Your task to perform on an android device: install app "Google Photos" Image 0: 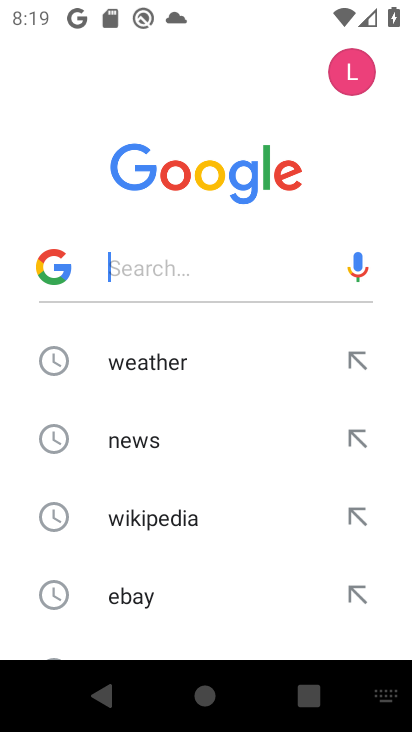
Step 0: press back button
Your task to perform on an android device: install app "Google Photos" Image 1: 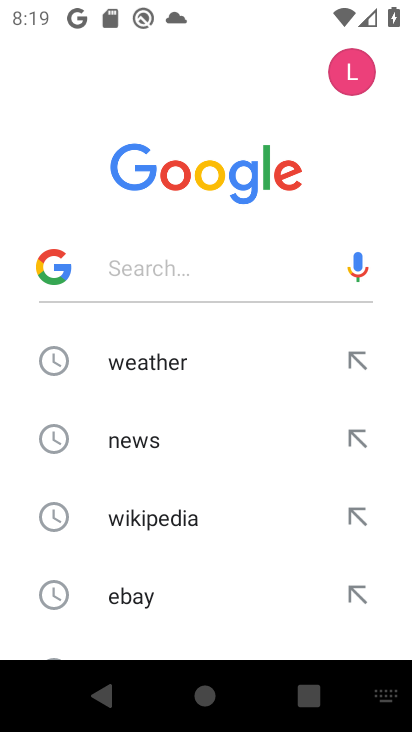
Step 1: press back button
Your task to perform on an android device: install app "Google Photos" Image 2: 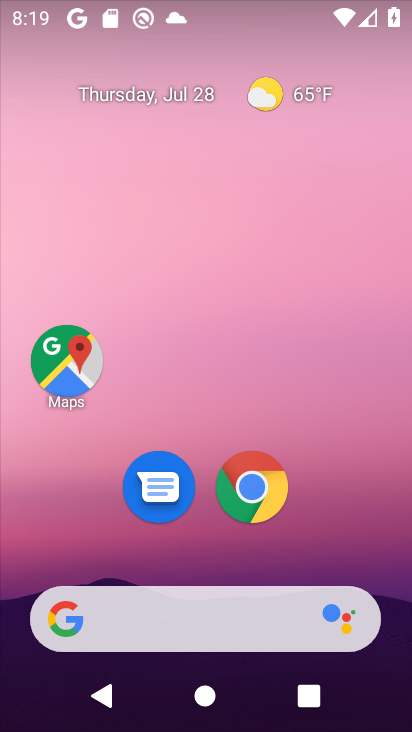
Step 2: drag from (227, 612) to (125, 69)
Your task to perform on an android device: install app "Google Photos" Image 3: 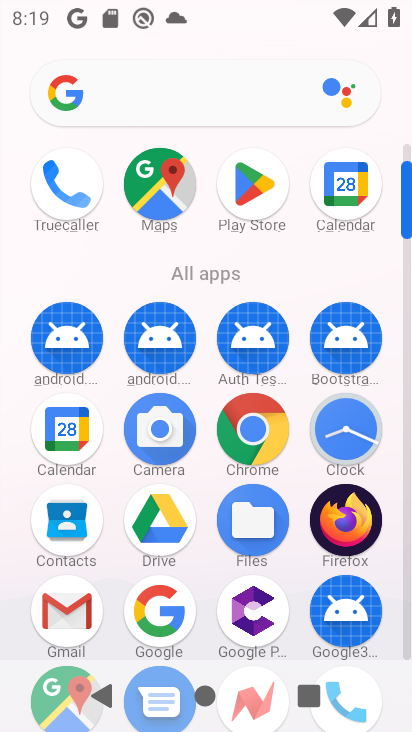
Step 3: click (261, 189)
Your task to perform on an android device: install app "Google Photos" Image 4: 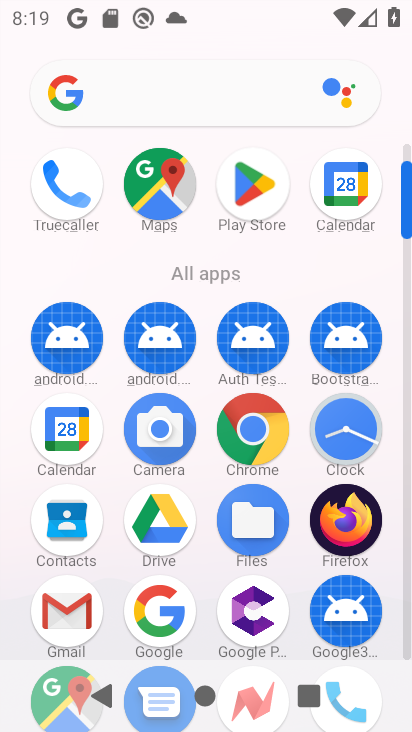
Step 4: click (261, 188)
Your task to perform on an android device: install app "Google Photos" Image 5: 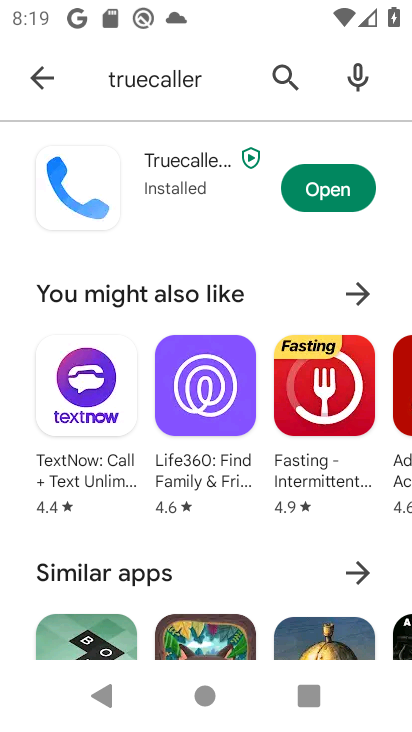
Step 5: click (30, 77)
Your task to perform on an android device: install app "Google Photos" Image 6: 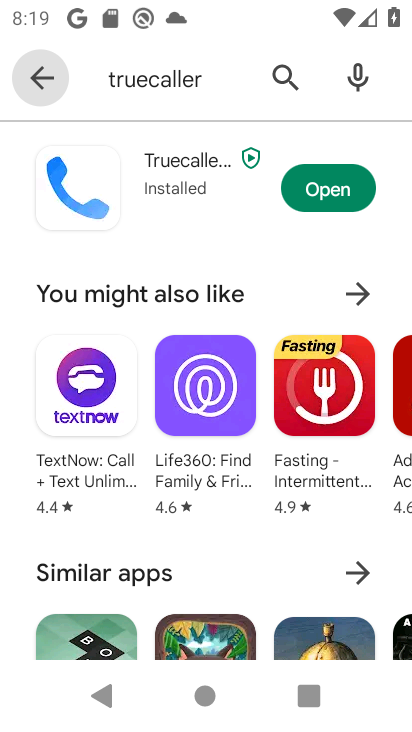
Step 6: click (31, 77)
Your task to perform on an android device: install app "Google Photos" Image 7: 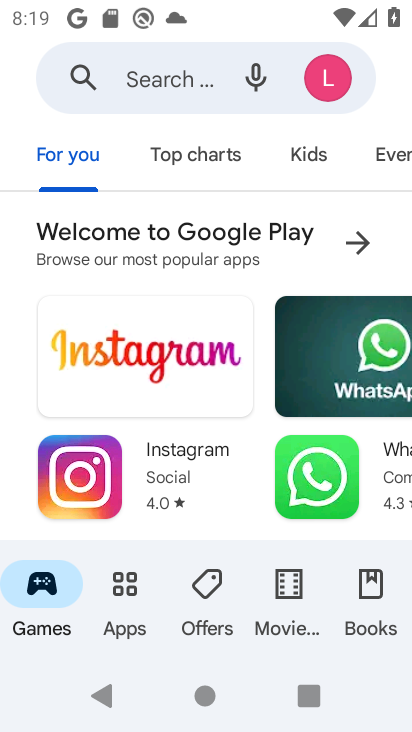
Step 7: click (164, 85)
Your task to perform on an android device: install app "Google Photos" Image 8: 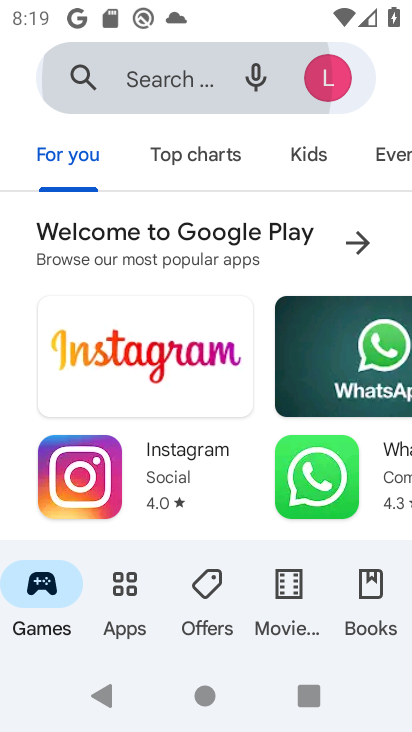
Step 8: click (166, 83)
Your task to perform on an android device: install app "Google Photos" Image 9: 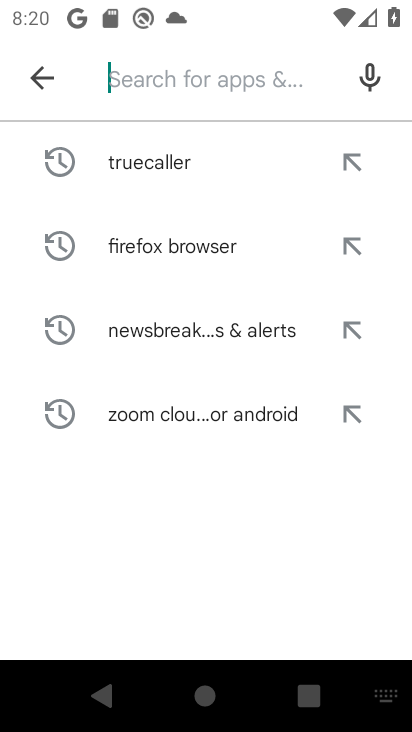
Step 9: type "google photos"
Your task to perform on an android device: install app "Google Photos" Image 10: 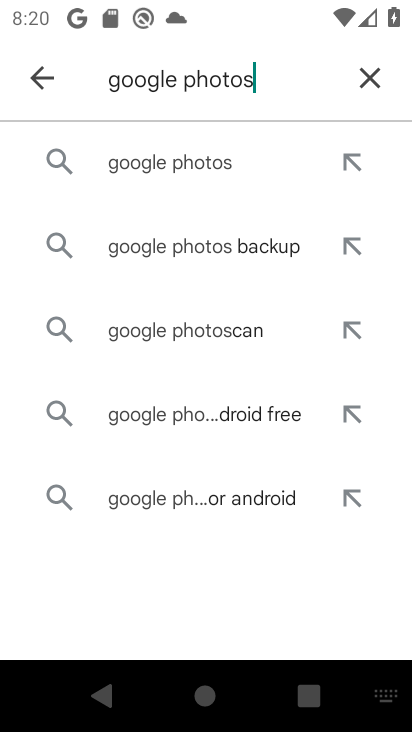
Step 10: click (346, 163)
Your task to perform on an android device: install app "Google Photos" Image 11: 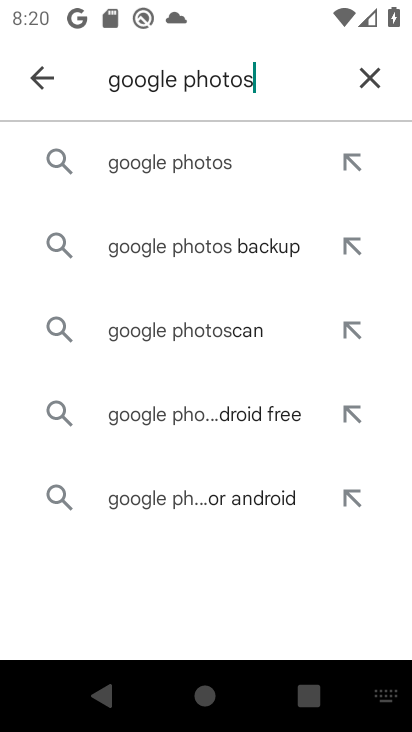
Step 11: click (347, 164)
Your task to perform on an android device: install app "Google Photos" Image 12: 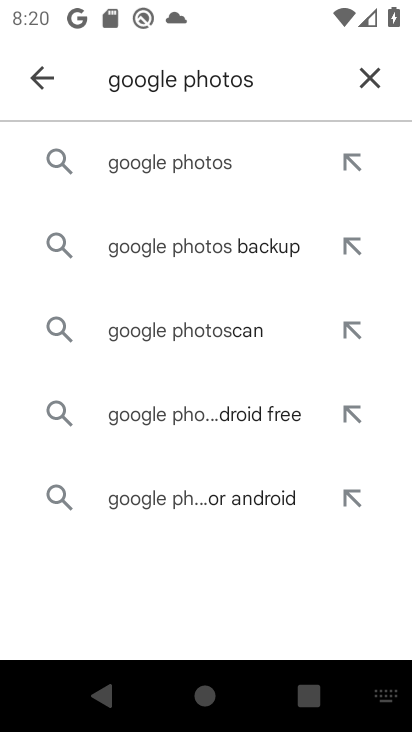
Step 12: click (221, 158)
Your task to perform on an android device: install app "Google Photos" Image 13: 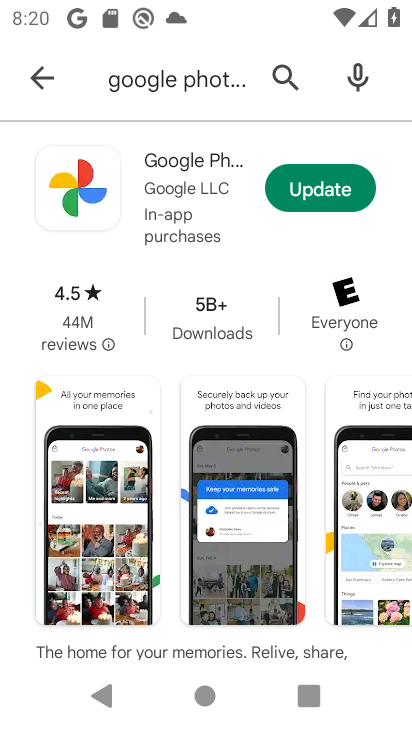
Step 13: click (315, 195)
Your task to perform on an android device: install app "Google Photos" Image 14: 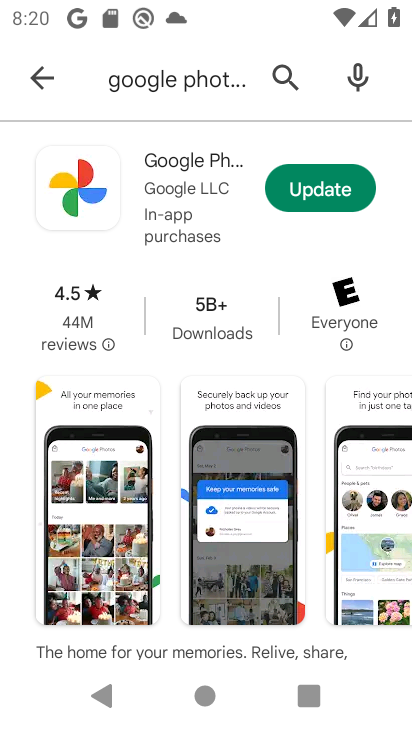
Step 14: click (315, 195)
Your task to perform on an android device: install app "Google Photos" Image 15: 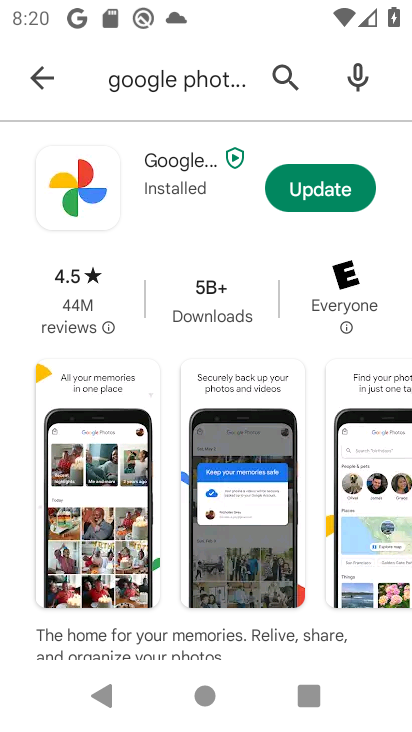
Step 15: click (338, 186)
Your task to perform on an android device: install app "Google Photos" Image 16: 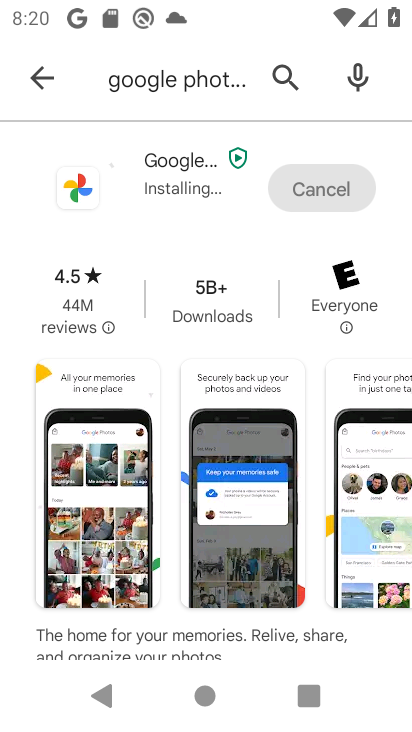
Step 16: task complete